Your task to perform on an android device: visit the assistant section in the google photos Image 0: 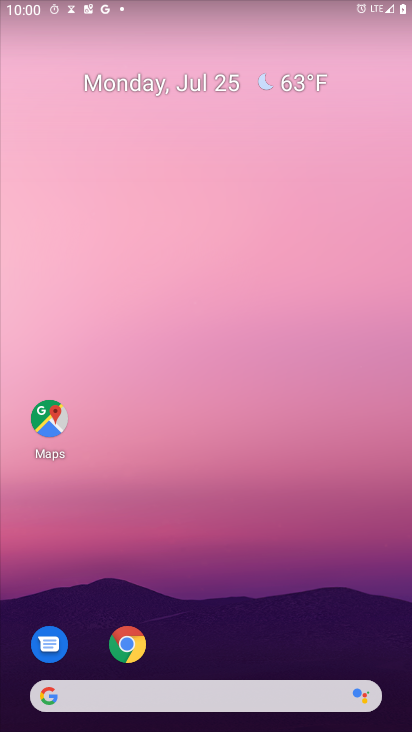
Step 0: drag from (180, 403) to (269, 166)
Your task to perform on an android device: visit the assistant section in the google photos Image 1: 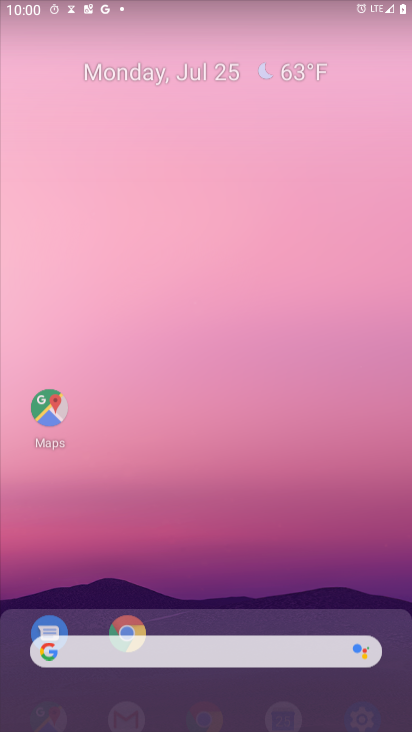
Step 1: click (248, 260)
Your task to perform on an android device: visit the assistant section in the google photos Image 2: 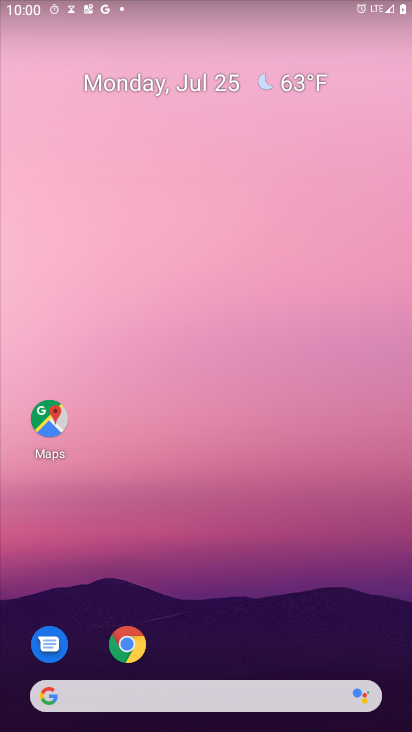
Step 2: drag from (235, 501) to (235, 313)
Your task to perform on an android device: visit the assistant section in the google photos Image 3: 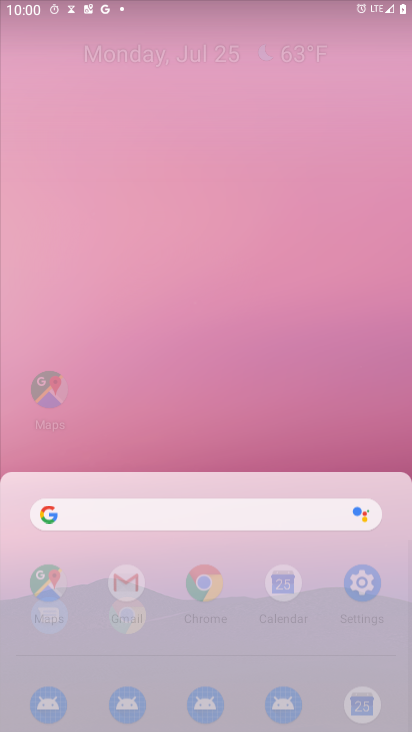
Step 3: drag from (283, 616) to (256, 319)
Your task to perform on an android device: visit the assistant section in the google photos Image 4: 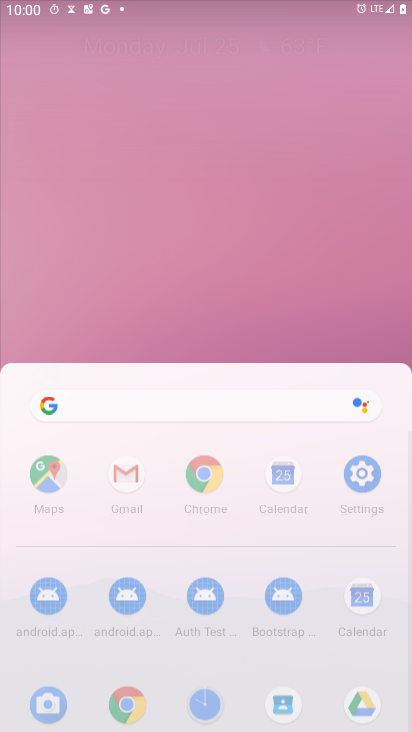
Step 4: drag from (220, 628) to (196, 298)
Your task to perform on an android device: visit the assistant section in the google photos Image 5: 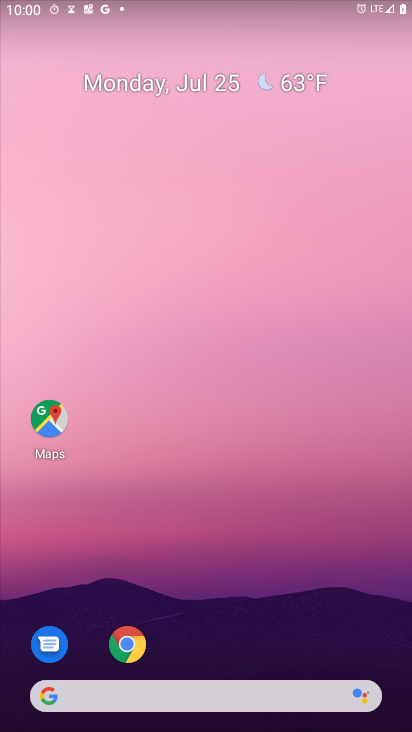
Step 5: drag from (252, 459) to (252, 256)
Your task to perform on an android device: visit the assistant section in the google photos Image 6: 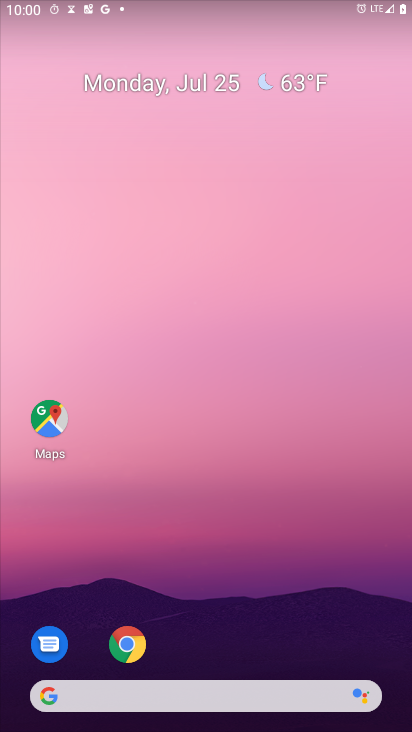
Step 6: drag from (237, 271) to (271, 184)
Your task to perform on an android device: visit the assistant section in the google photos Image 7: 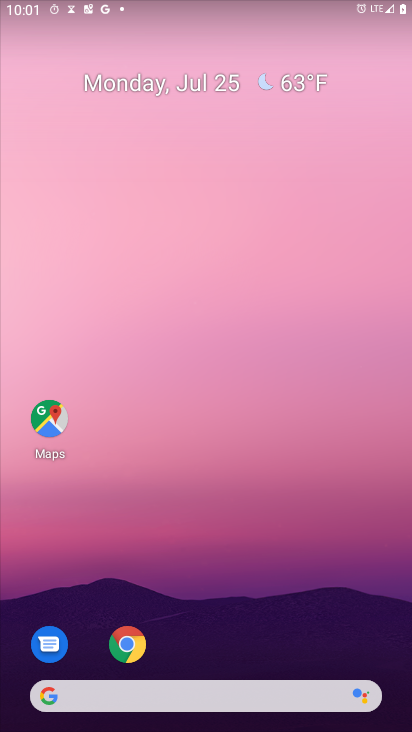
Step 7: drag from (156, 597) to (129, 203)
Your task to perform on an android device: visit the assistant section in the google photos Image 8: 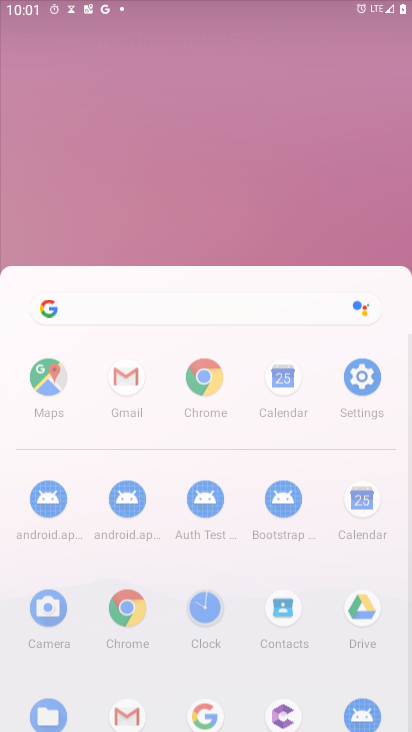
Step 8: drag from (171, 446) to (128, 185)
Your task to perform on an android device: visit the assistant section in the google photos Image 9: 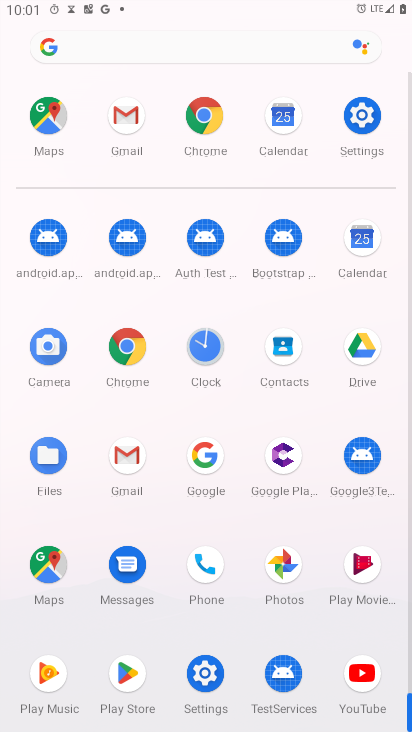
Step 9: click (286, 565)
Your task to perform on an android device: visit the assistant section in the google photos Image 10: 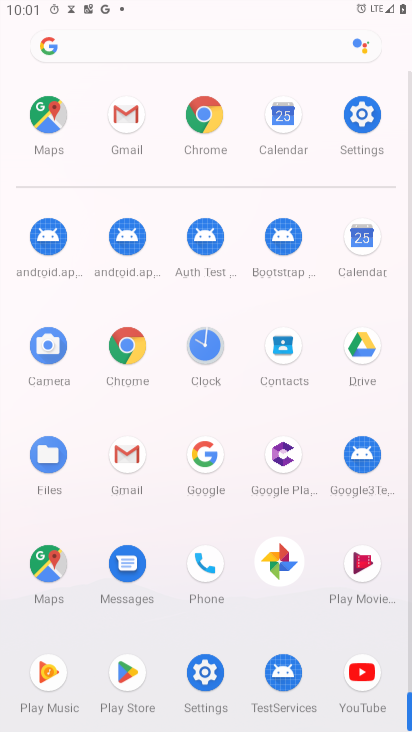
Step 10: click (287, 563)
Your task to perform on an android device: visit the assistant section in the google photos Image 11: 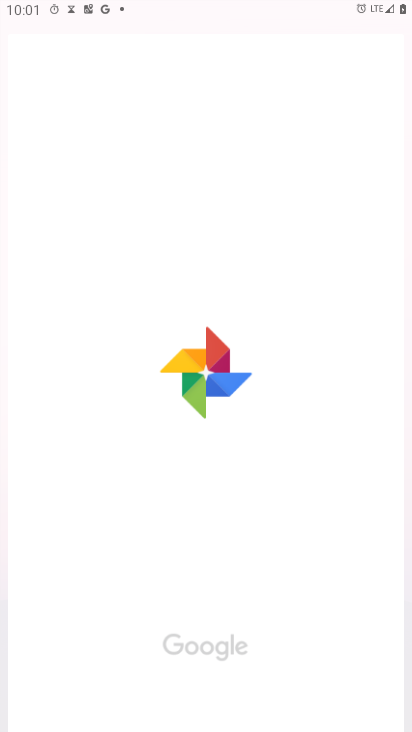
Step 11: click (287, 563)
Your task to perform on an android device: visit the assistant section in the google photos Image 12: 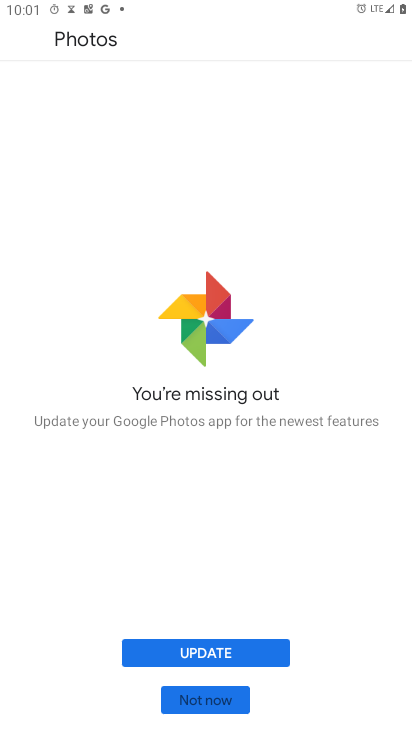
Step 12: click (196, 695)
Your task to perform on an android device: visit the assistant section in the google photos Image 13: 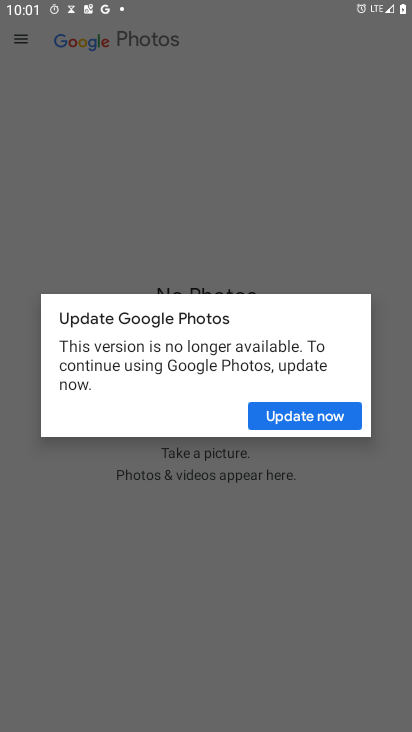
Step 13: click (309, 410)
Your task to perform on an android device: visit the assistant section in the google photos Image 14: 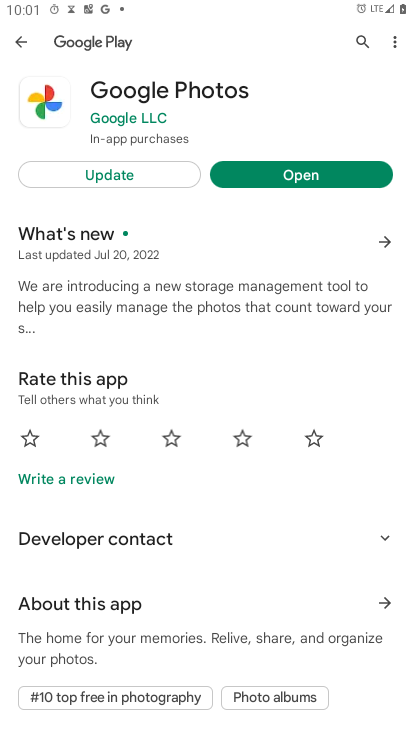
Step 14: click (140, 177)
Your task to perform on an android device: visit the assistant section in the google photos Image 15: 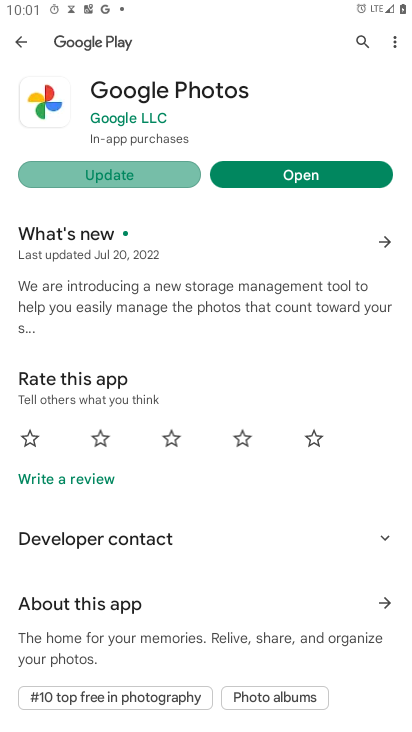
Step 15: click (140, 177)
Your task to perform on an android device: visit the assistant section in the google photos Image 16: 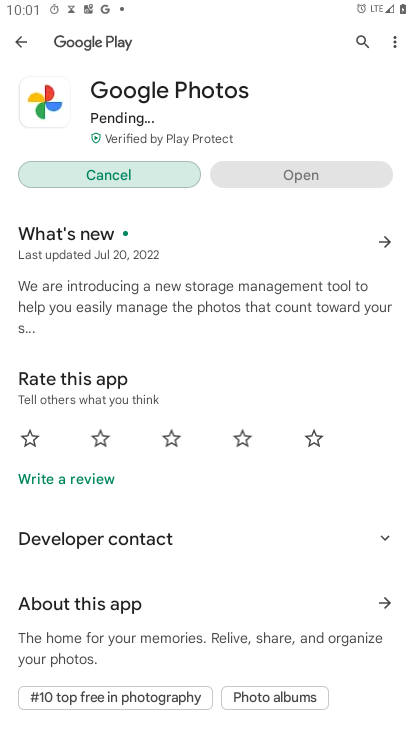
Step 16: click (142, 177)
Your task to perform on an android device: visit the assistant section in the google photos Image 17: 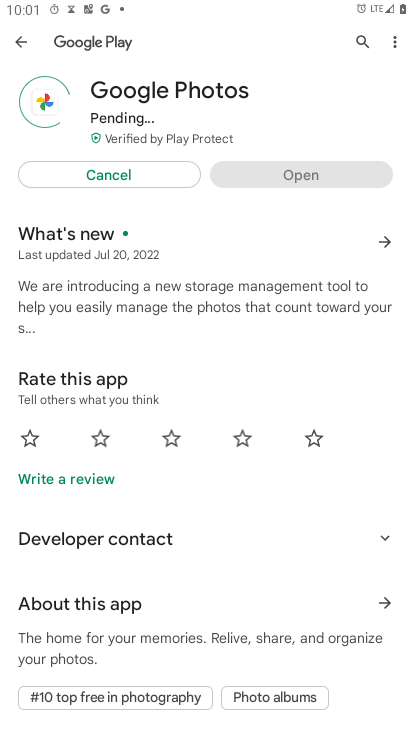
Step 17: click (269, 166)
Your task to perform on an android device: visit the assistant section in the google photos Image 18: 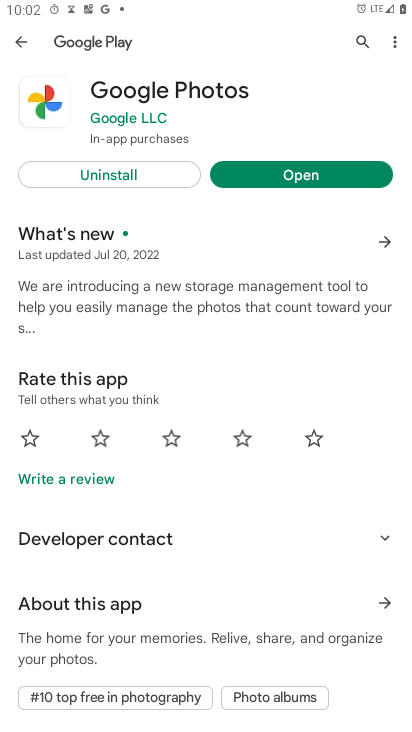
Step 18: click (309, 163)
Your task to perform on an android device: visit the assistant section in the google photos Image 19: 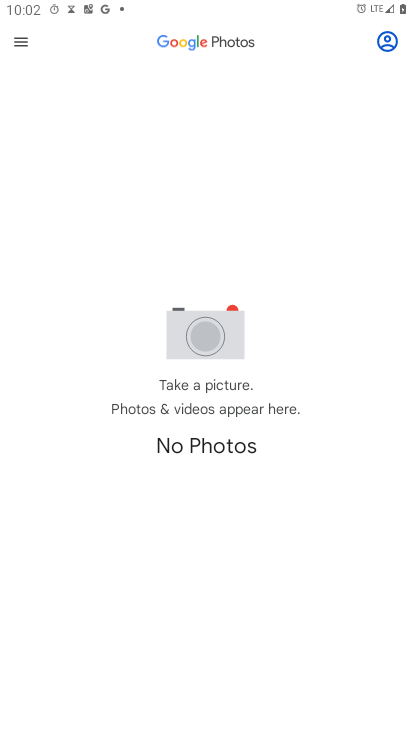
Step 19: task complete